Your task to perform on an android device: What's the weather going to be this weekend? Image 0: 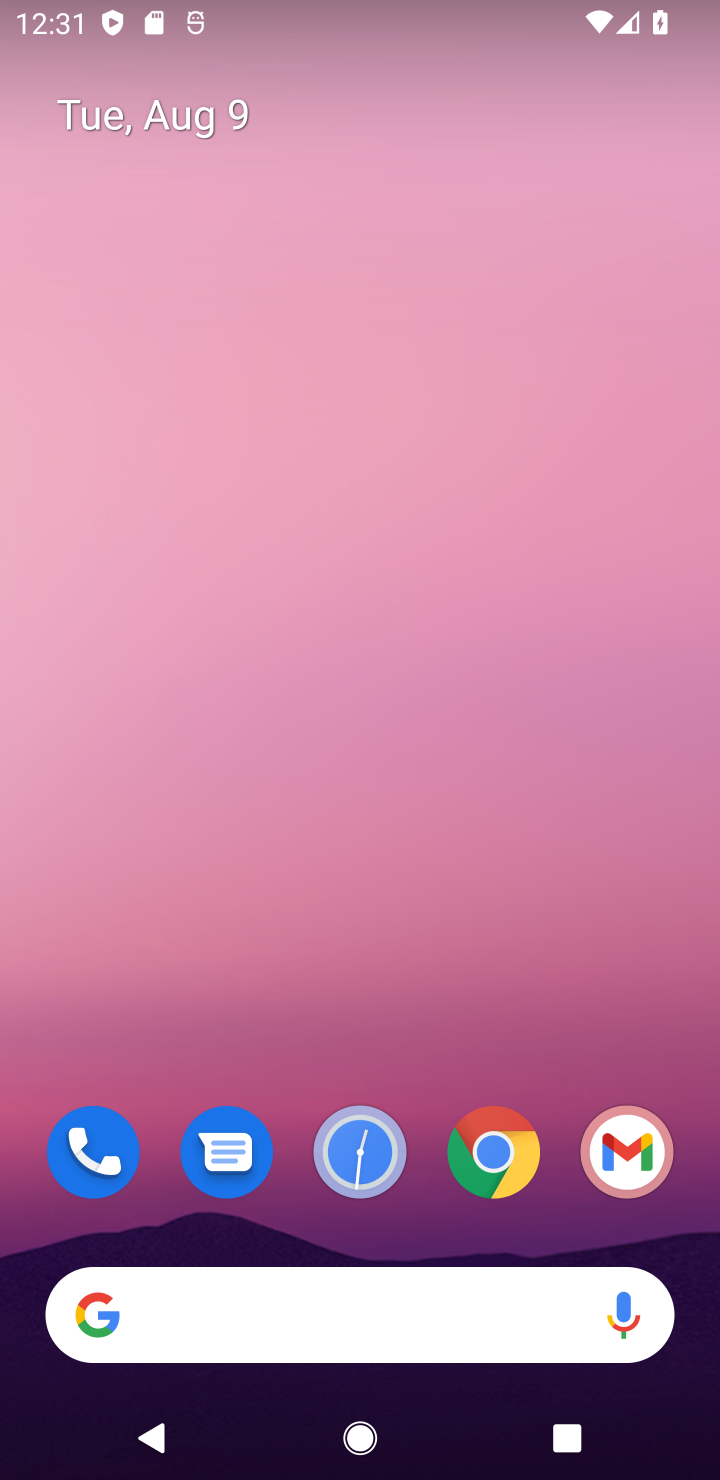
Step 0: click (447, 1289)
Your task to perform on an android device: What's the weather going to be this weekend? Image 1: 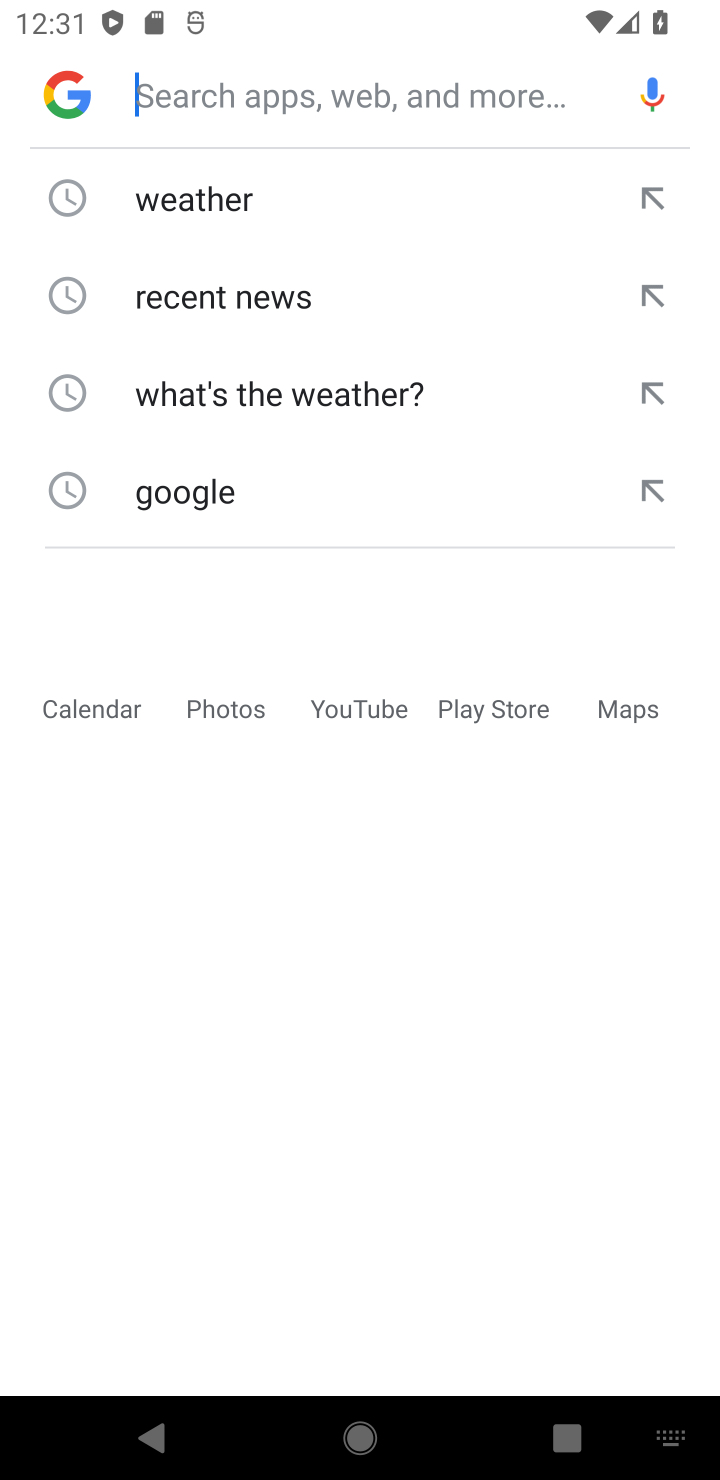
Step 1: click (251, 189)
Your task to perform on an android device: What's the weather going to be this weekend? Image 2: 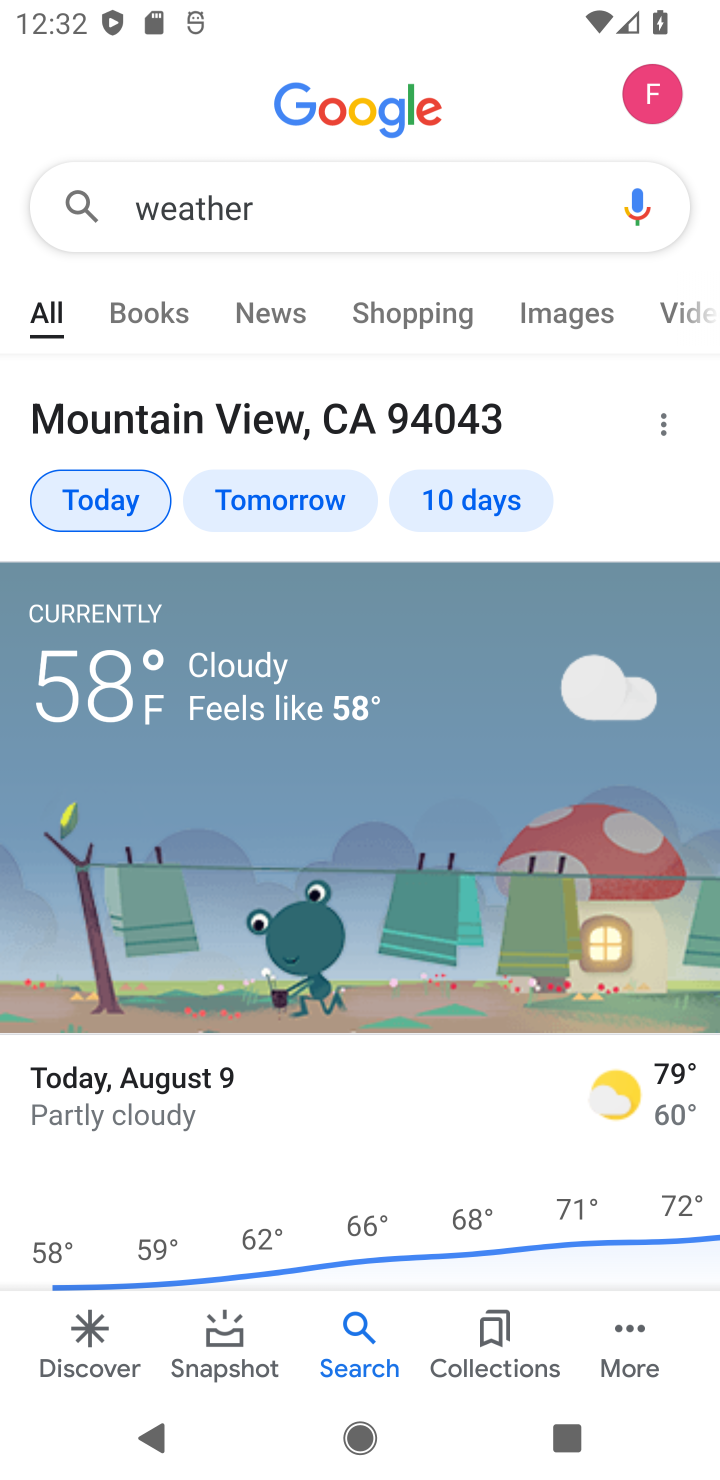
Step 2: click (444, 480)
Your task to perform on an android device: What's the weather going to be this weekend? Image 3: 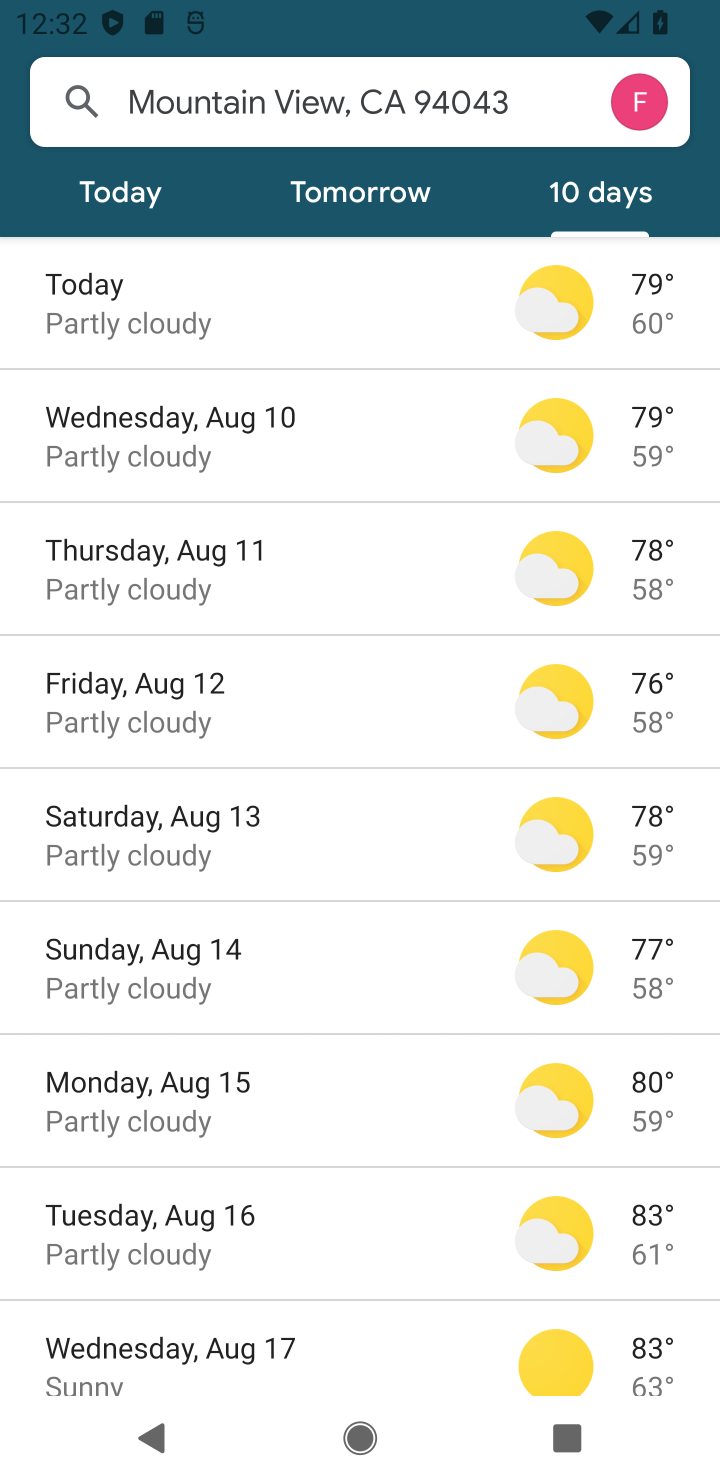
Step 3: click (201, 803)
Your task to perform on an android device: What's the weather going to be this weekend? Image 4: 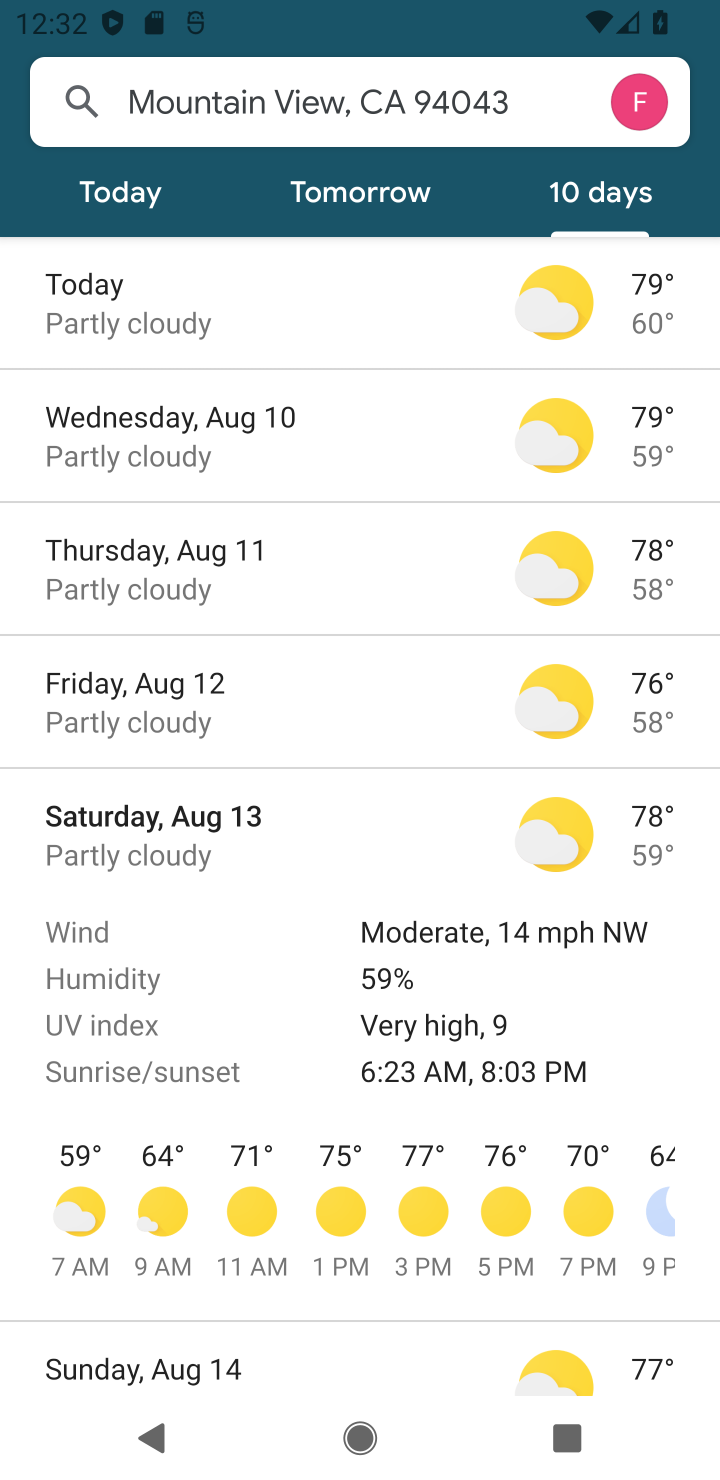
Step 4: task complete